Your task to perform on an android device: Search for vegetarian restaurants on Maps Image 0: 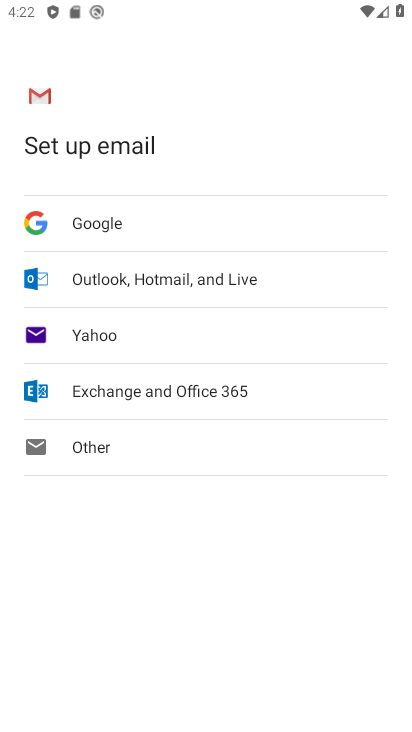
Step 0: press home button
Your task to perform on an android device: Search for vegetarian restaurants on Maps Image 1: 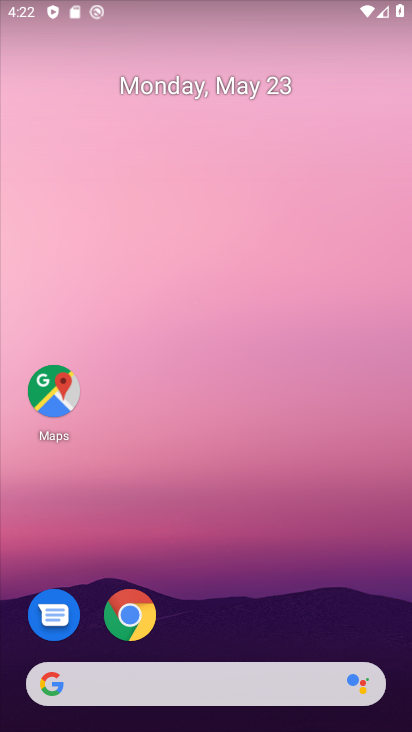
Step 1: click (52, 389)
Your task to perform on an android device: Search for vegetarian restaurants on Maps Image 2: 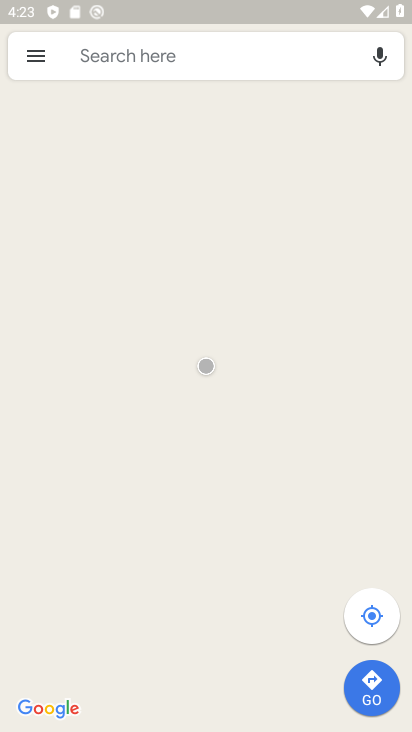
Step 2: click (264, 61)
Your task to perform on an android device: Search for vegetarian restaurants on Maps Image 3: 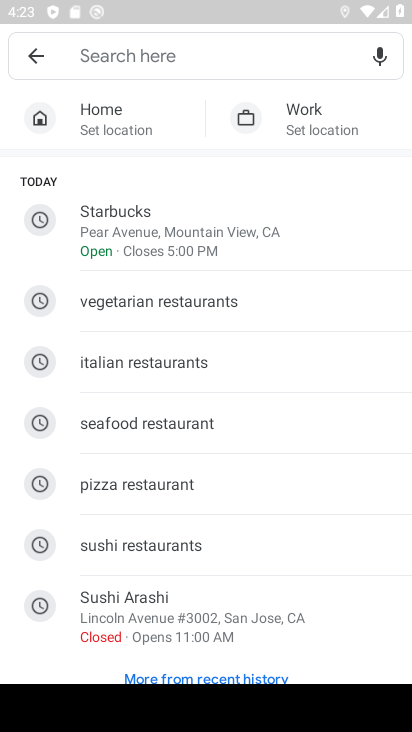
Step 3: click (203, 301)
Your task to perform on an android device: Search for vegetarian restaurants on Maps Image 4: 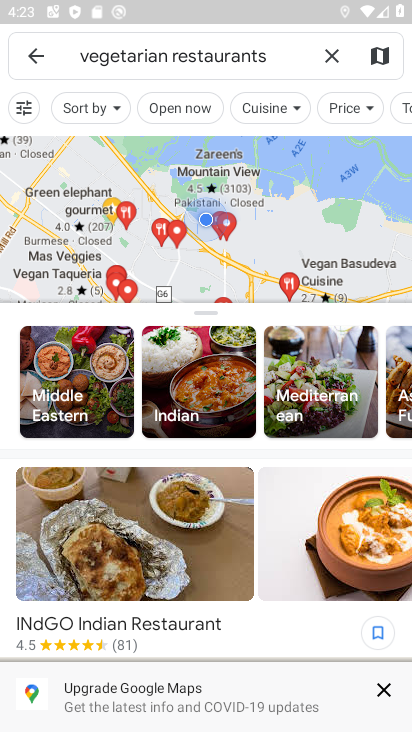
Step 4: task complete